Your task to perform on an android device: What is the news today? Image 0: 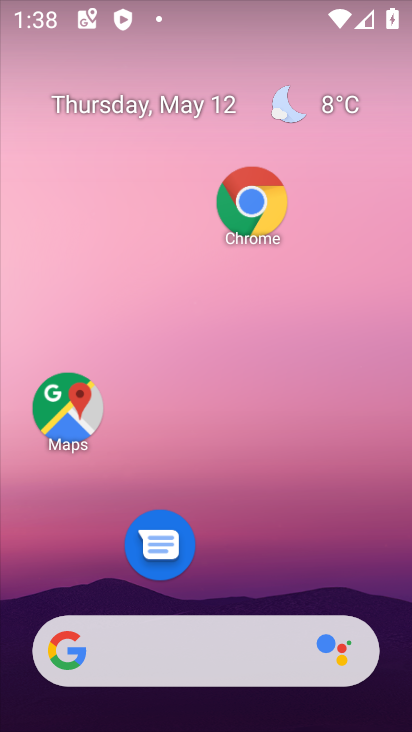
Step 0: drag from (214, 589) to (147, 210)
Your task to perform on an android device: What is the news today? Image 1: 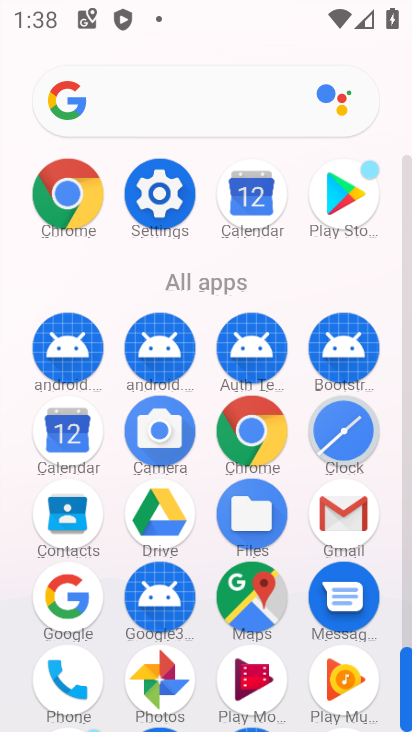
Step 1: click (205, 108)
Your task to perform on an android device: What is the news today? Image 2: 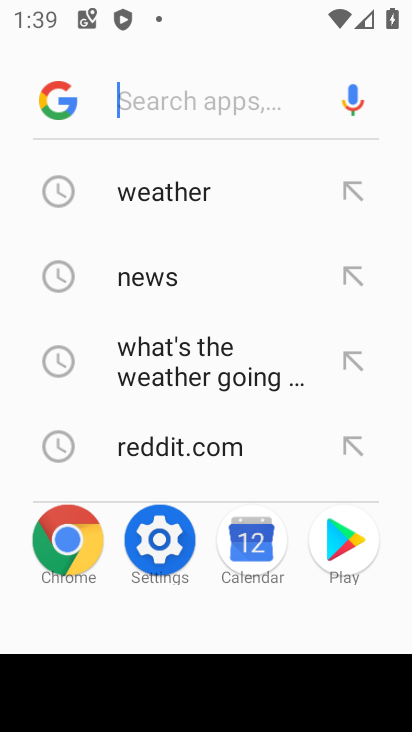
Step 2: type "news today"
Your task to perform on an android device: What is the news today? Image 3: 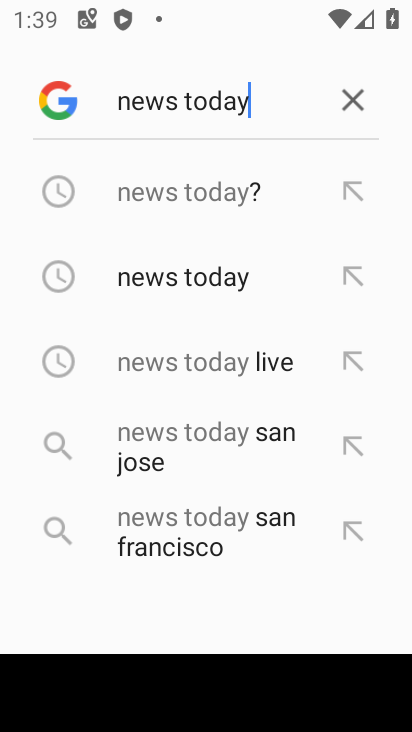
Step 3: click (190, 206)
Your task to perform on an android device: What is the news today? Image 4: 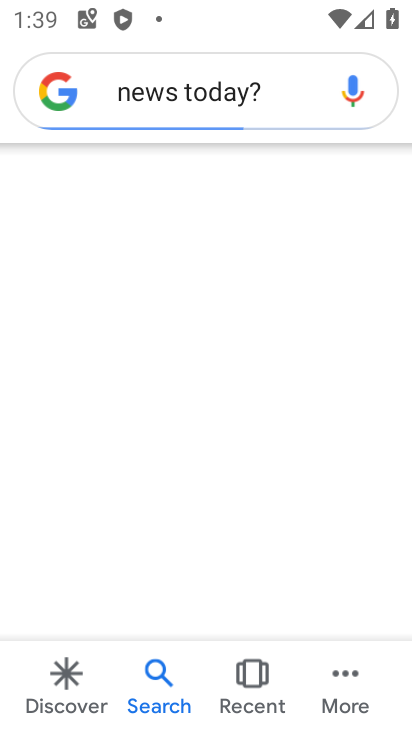
Step 4: task complete